Your task to perform on an android device: Empty the shopping cart on costco.com. Add rayovac triple a to the cart on costco.com Image 0: 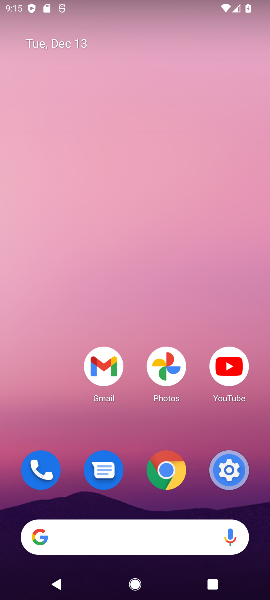
Step 0: press home button
Your task to perform on an android device: Empty the shopping cart on costco.com. Add rayovac triple a to the cart on costco.com Image 1: 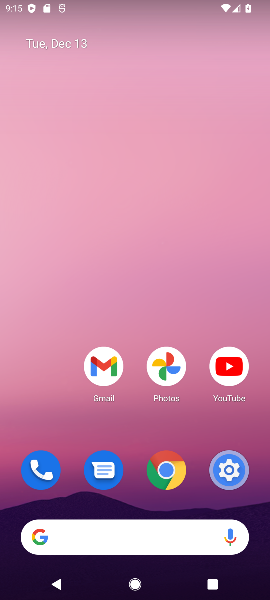
Step 1: click (57, 533)
Your task to perform on an android device: Empty the shopping cart on costco.com. Add rayovac triple a to the cart on costco.com Image 2: 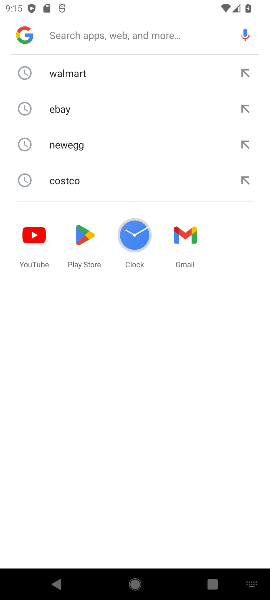
Step 2: type "costco.com"
Your task to perform on an android device: Empty the shopping cart on costco.com. Add rayovac triple a to the cart on costco.com Image 3: 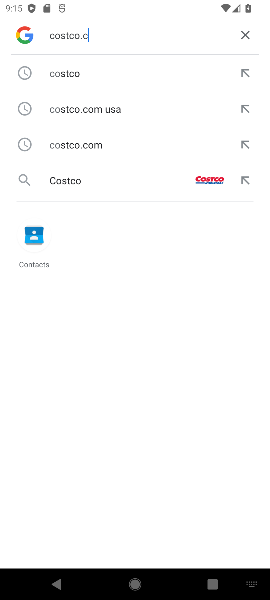
Step 3: press enter
Your task to perform on an android device: Empty the shopping cart on costco.com. Add rayovac triple a to the cart on costco.com Image 4: 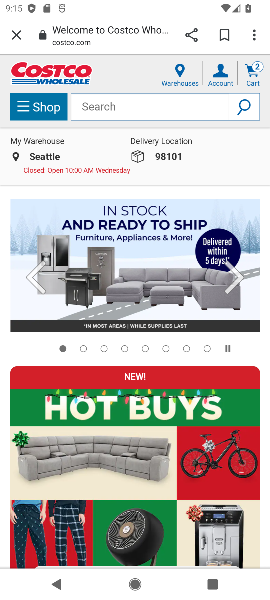
Step 4: click (254, 68)
Your task to perform on an android device: Empty the shopping cart on costco.com. Add rayovac triple a to the cart on costco.com Image 5: 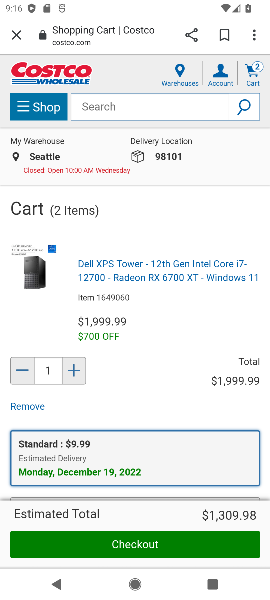
Step 5: click (25, 407)
Your task to perform on an android device: Empty the shopping cart on costco.com. Add rayovac triple a to the cart on costco.com Image 6: 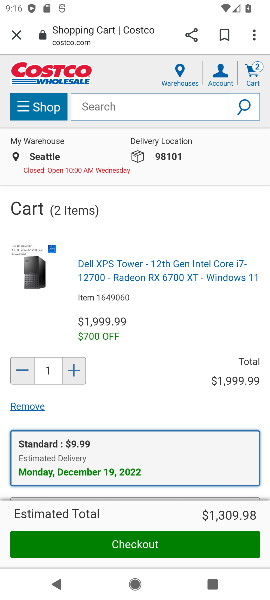
Step 6: click (125, 102)
Your task to perform on an android device: Empty the shopping cart on costco.com. Add rayovac triple a to the cart on costco.com Image 7: 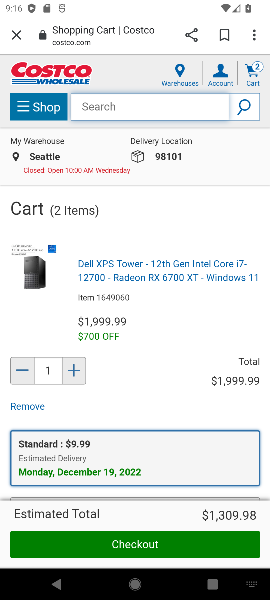
Step 7: type "rayovac triple a"
Your task to perform on an android device: Empty the shopping cart on costco.com. Add rayovac triple a to the cart on costco.com Image 8: 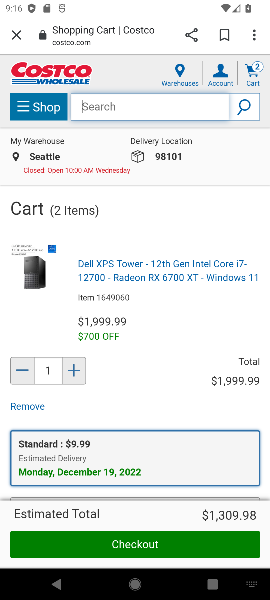
Step 8: press enter
Your task to perform on an android device: Empty the shopping cart on costco.com. Add rayovac triple a to the cart on costco.com Image 9: 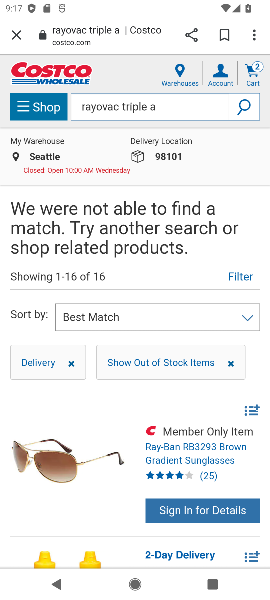
Step 9: task complete